Your task to perform on an android device: Go to Google Image 0: 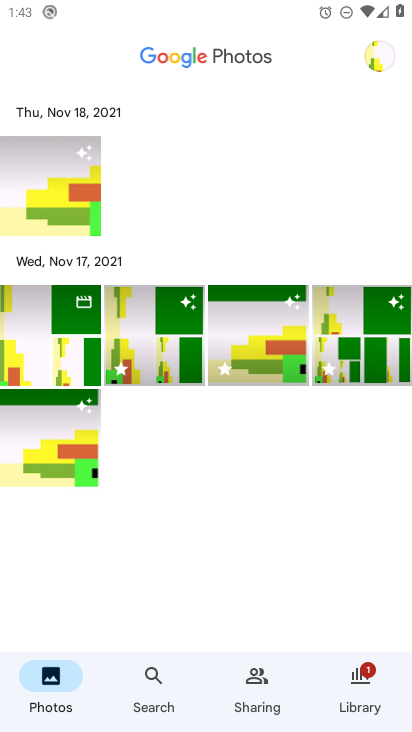
Step 0: press home button
Your task to perform on an android device: Go to Google Image 1: 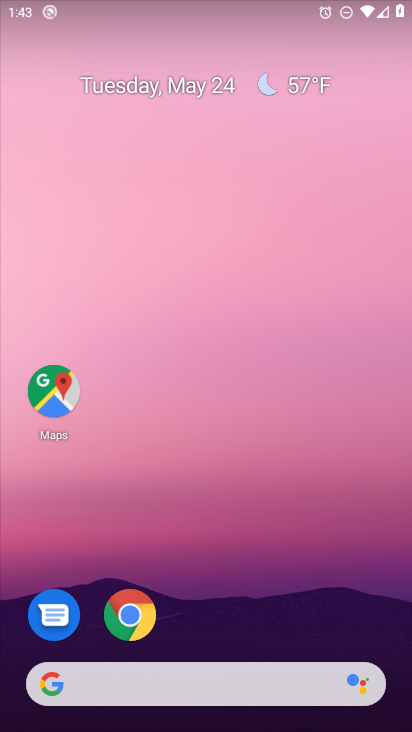
Step 1: drag from (156, 638) to (156, 466)
Your task to perform on an android device: Go to Google Image 2: 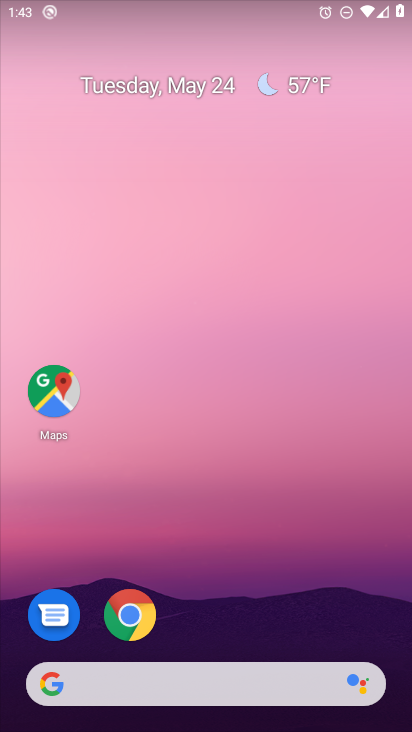
Step 2: click (133, 597)
Your task to perform on an android device: Go to Google Image 3: 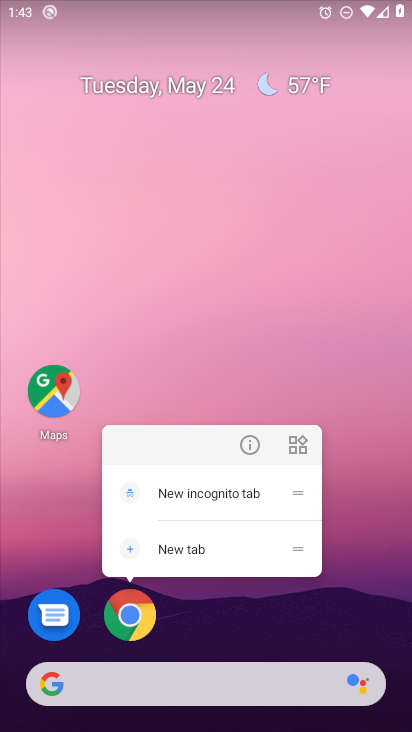
Step 3: drag from (176, 662) to (180, 244)
Your task to perform on an android device: Go to Google Image 4: 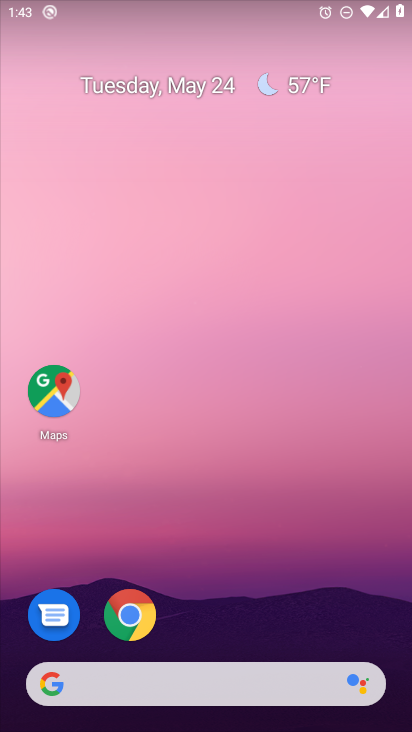
Step 4: drag from (225, 658) to (196, 145)
Your task to perform on an android device: Go to Google Image 5: 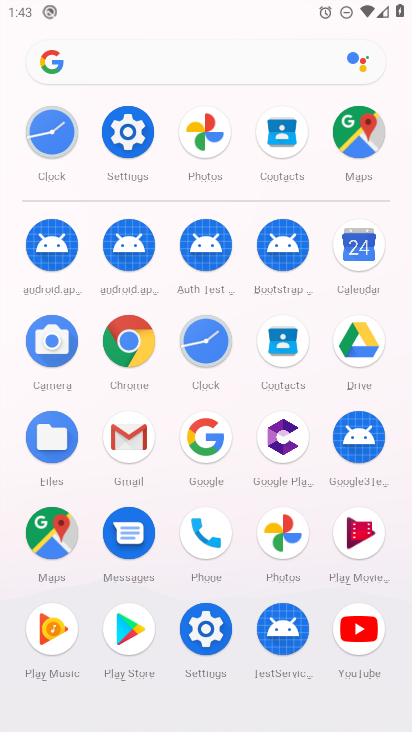
Step 5: click (213, 439)
Your task to perform on an android device: Go to Google Image 6: 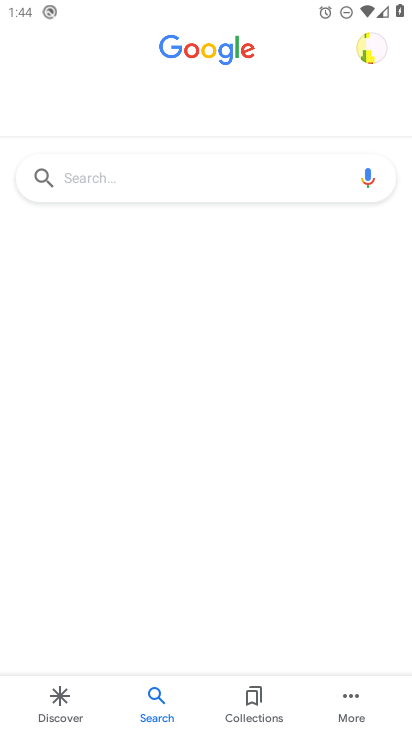
Step 6: task complete